Your task to perform on an android device: Open Youtube and go to the subscriptions tab Image 0: 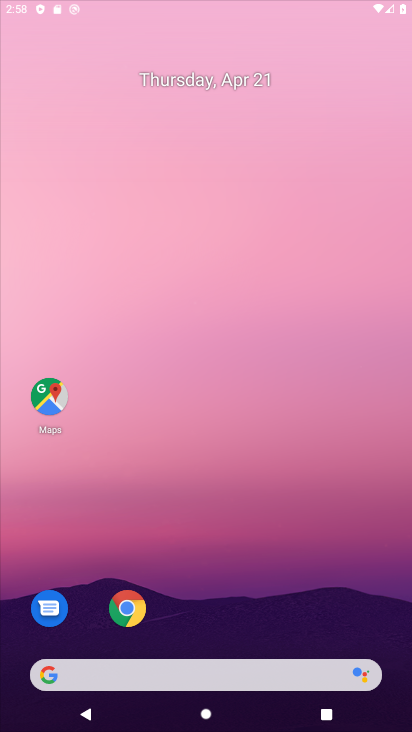
Step 0: click (230, 217)
Your task to perform on an android device: Open Youtube and go to the subscriptions tab Image 1: 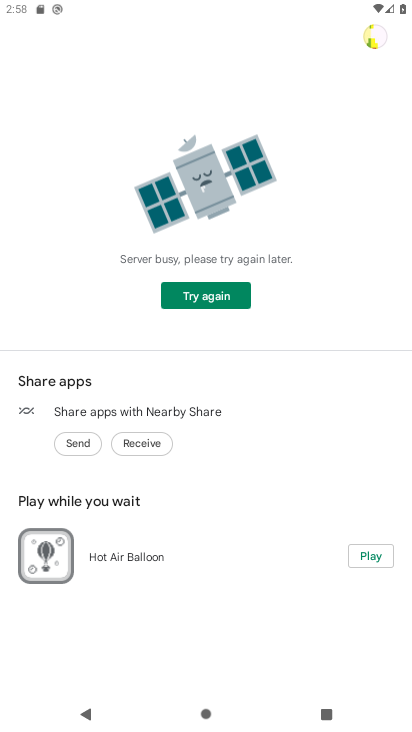
Step 1: press home button
Your task to perform on an android device: Open Youtube and go to the subscriptions tab Image 2: 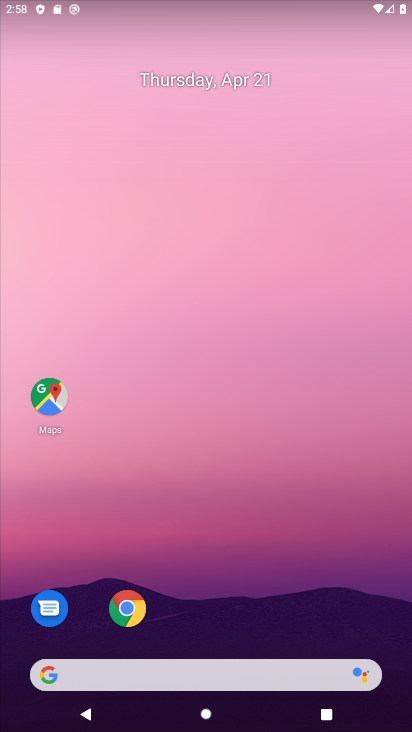
Step 2: drag from (227, 597) to (205, 150)
Your task to perform on an android device: Open Youtube and go to the subscriptions tab Image 3: 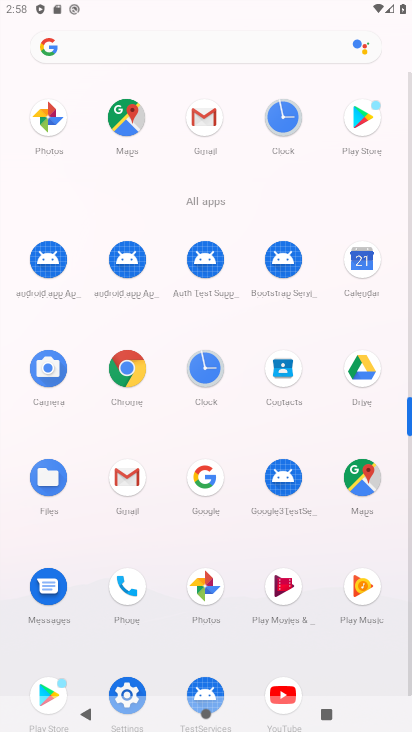
Step 3: click (282, 680)
Your task to perform on an android device: Open Youtube and go to the subscriptions tab Image 4: 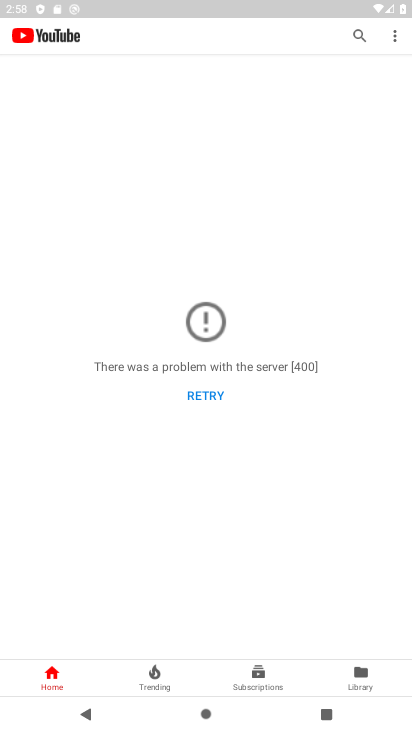
Step 4: click (258, 673)
Your task to perform on an android device: Open Youtube and go to the subscriptions tab Image 5: 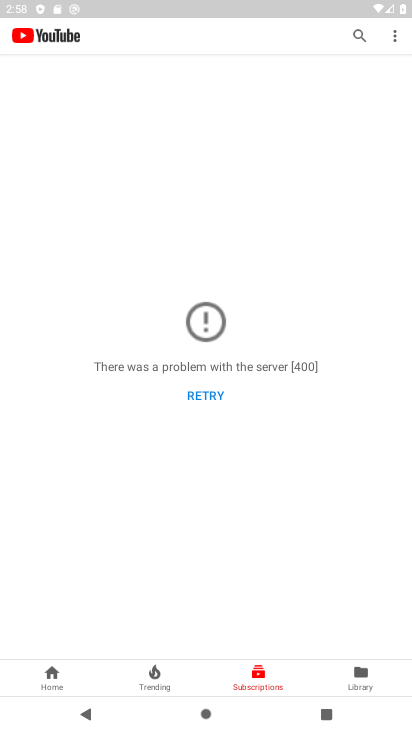
Step 5: task complete